Your task to perform on an android device: Go to ESPN.com Image 0: 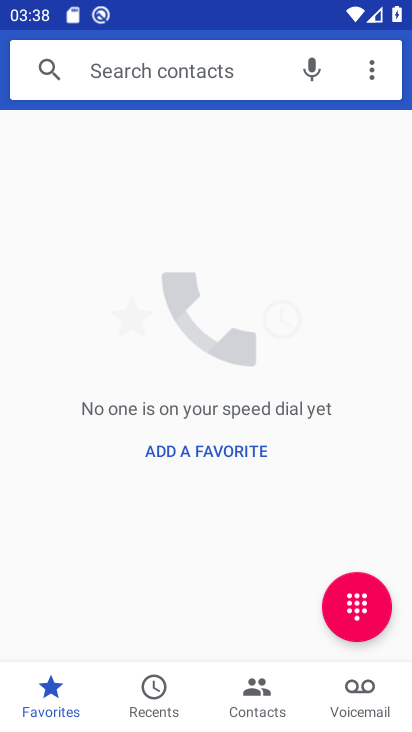
Step 0: press home button
Your task to perform on an android device: Go to ESPN.com Image 1: 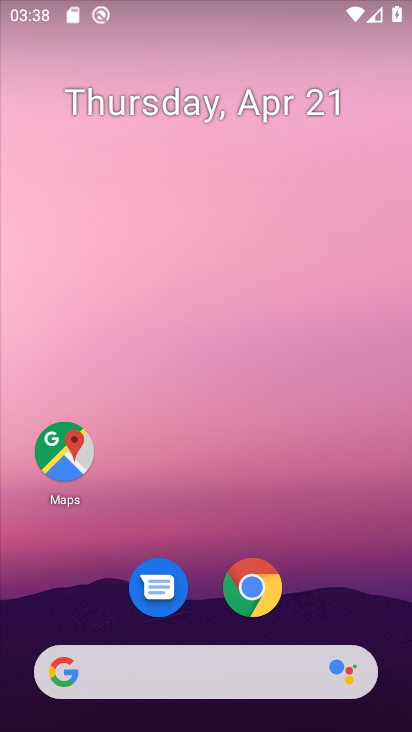
Step 1: drag from (328, 598) to (345, 119)
Your task to perform on an android device: Go to ESPN.com Image 2: 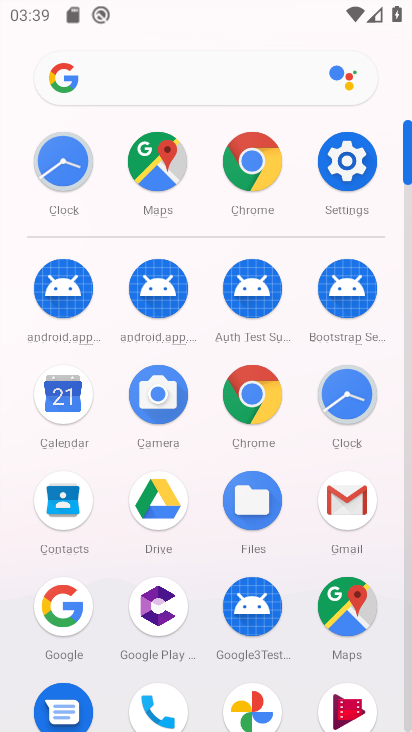
Step 2: click (264, 406)
Your task to perform on an android device: Go to ESPN.com Image 3: 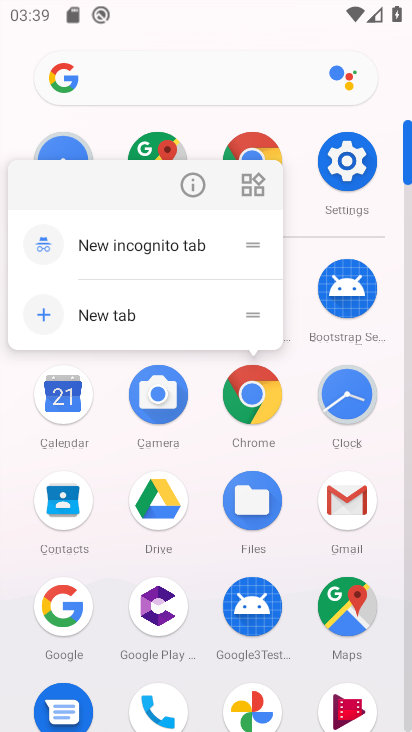
Step 3: click (264, 406)
Your task to perform on an android device: Go to ESPN.com Image 4: 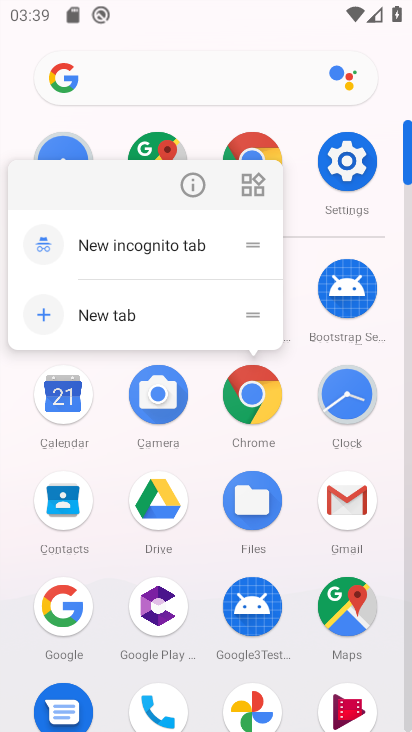
Step 4: click (265, 407)
Your task to perform on an android device: Go to ESPN.com Image 5: 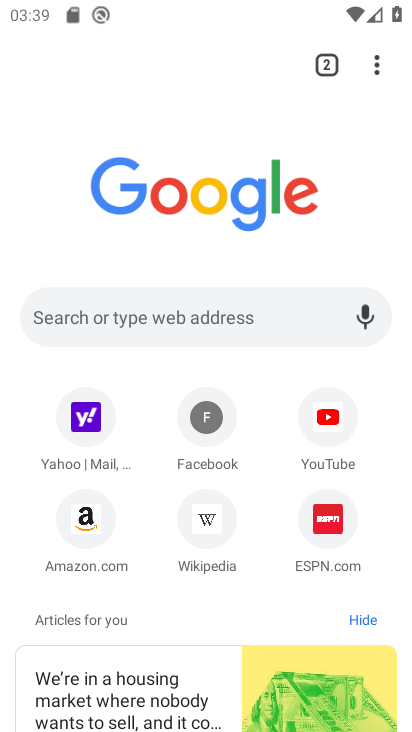
Step 5: click (322, 534)
Your task to perform on an android device: Go to ESPN.com Image 6: 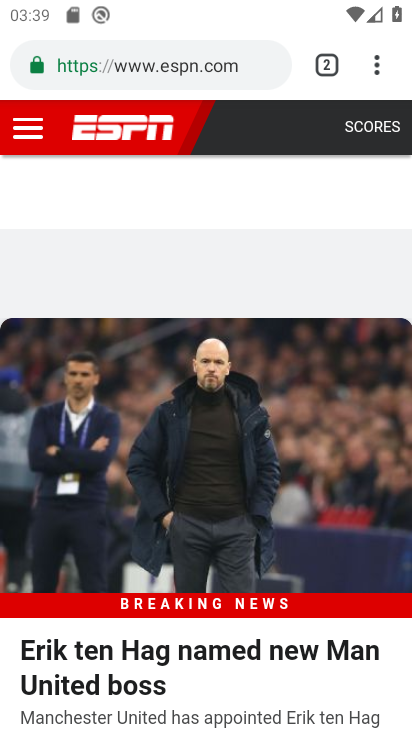
Step 6: task complete